Your task to perform on an android device: visit the assistant section in the google photos Image 0: 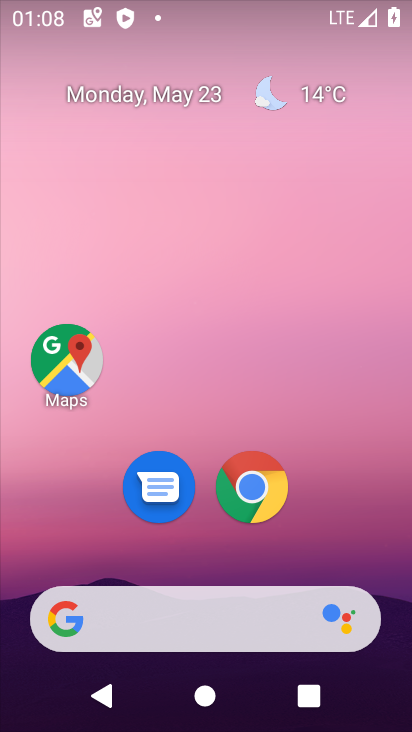
Step 0: drag from (401, 618) to (332, 34)
Your task to perform on an android device: visit the assistant section in the google photos Image 1: 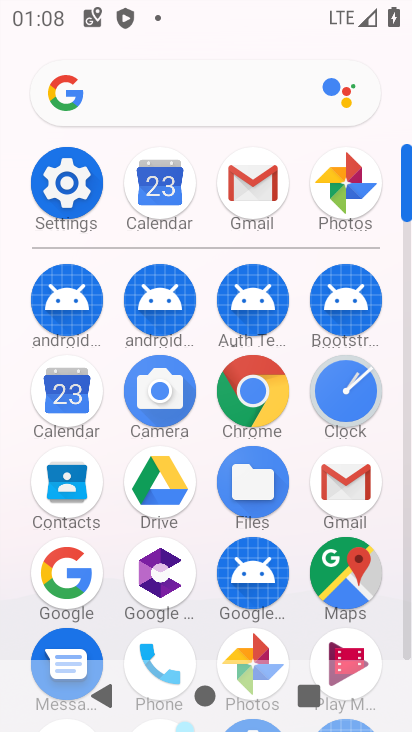
Step 1: click (407, 648)
Your task to perform on an android device: visit the assistant section in the google photos Image 2: 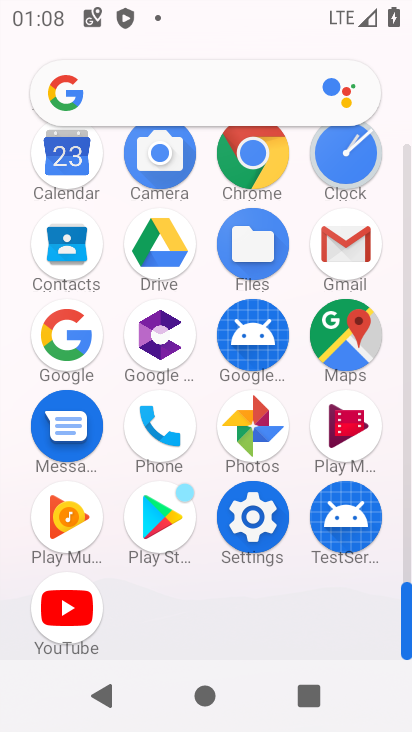
Step 2: click (253, 425)
Your task to perform on an android device: visit the assistant section in the google photos Image 3: 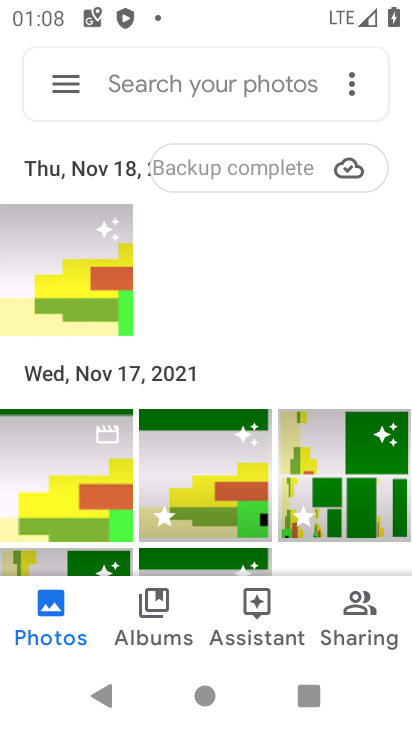
Step 3: click (64, 85)
Your task to perform on an android device: visit the assistant section in the google photos Image 4: 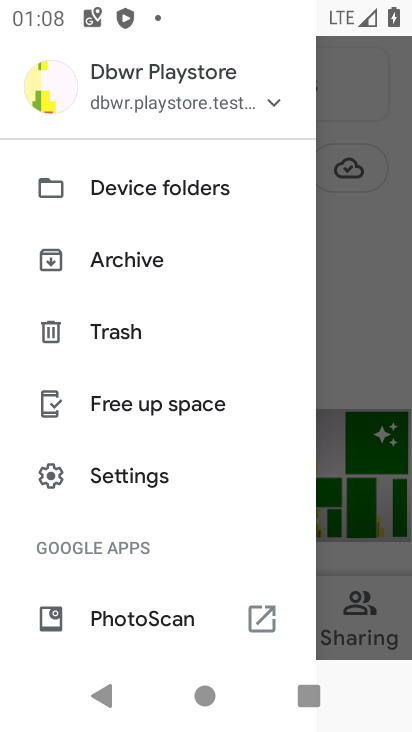
Step 4: click (365, 545)
Your task to perform on an android device: visit the assistant section in the google photos Image 5: 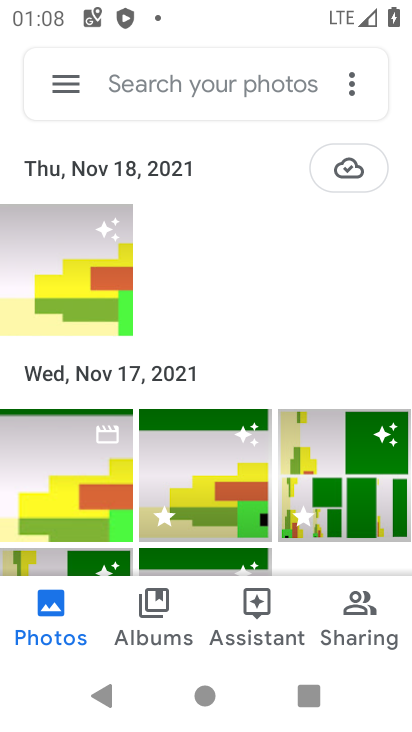
Step 5: click (250, 620)
Your task to perform on an android device: visit the assistant section in the google photos Image 6: 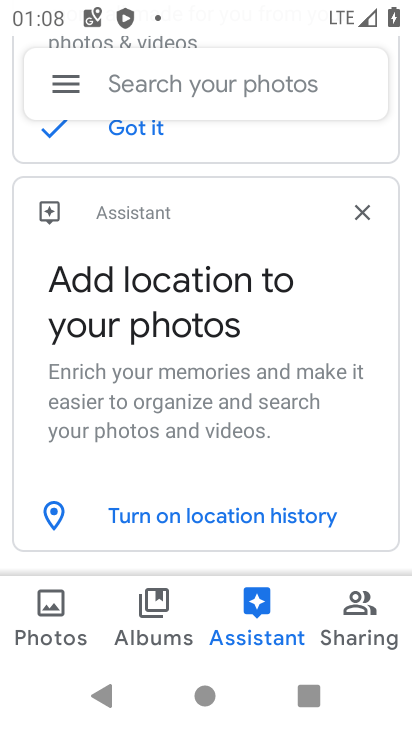
Step 6: click (360, 212)
Your task to perform on an android device: visit the assistant section in the google photos Image 7: 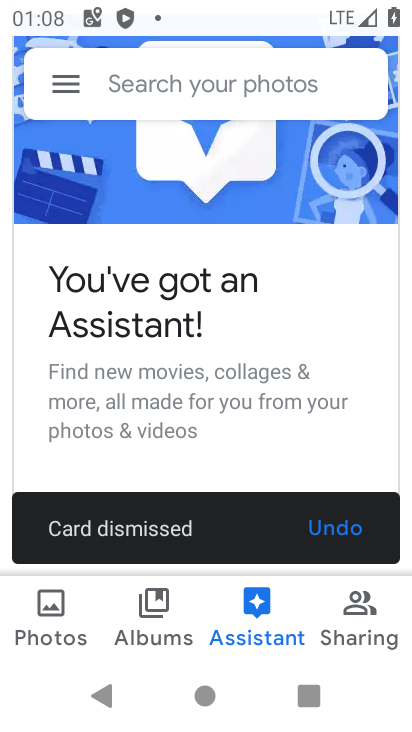
Step 7: drag from (313, 461) to (256, 17)
Your task to perform on an android device: visit the assistant section in the google photos Image 8: 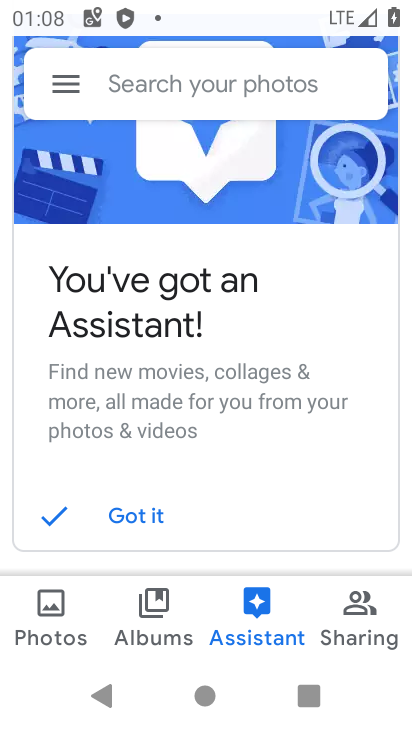
Step 8: click (131, 522)
Your task to perform on an android device: visit the assistant section in the google photos Image 9: 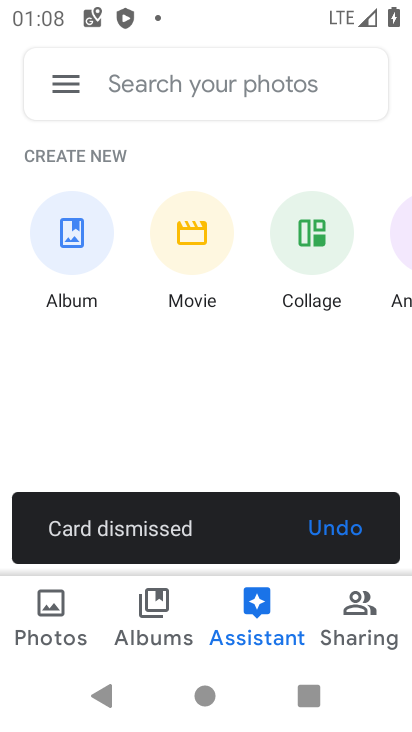
Step 9: task complete